Your task to perform on an android device: turn off improve location accuracy Image 0: 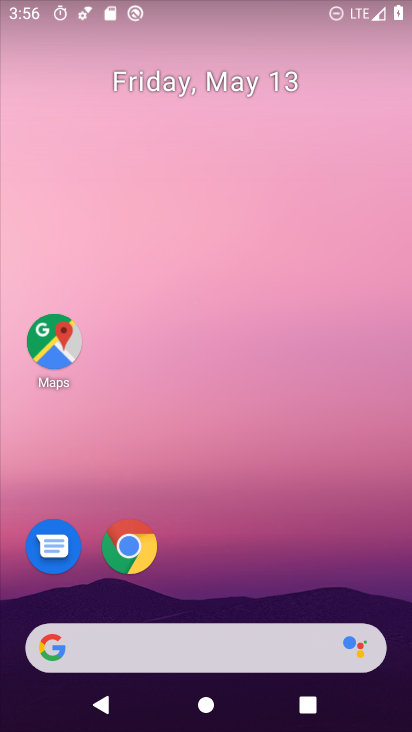
Step 0: drag from (156, 669) to (171, 210)
Your task to perform on an android device: turn off improve location accuracy Image 1: 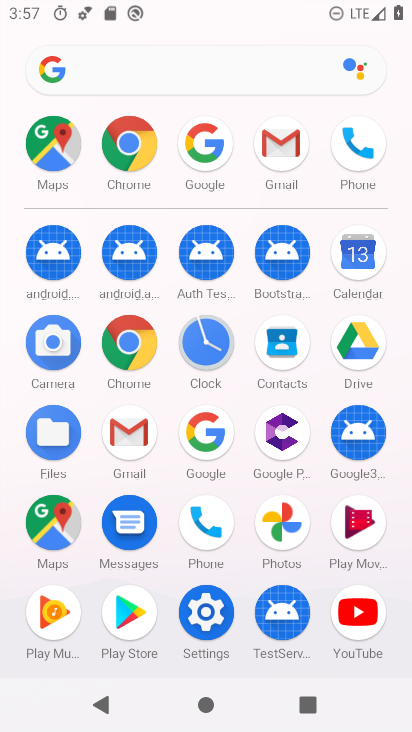
Step 1: click (213, 624)
Your task to perform on an android device: turn off improve location accuracy Image 2: 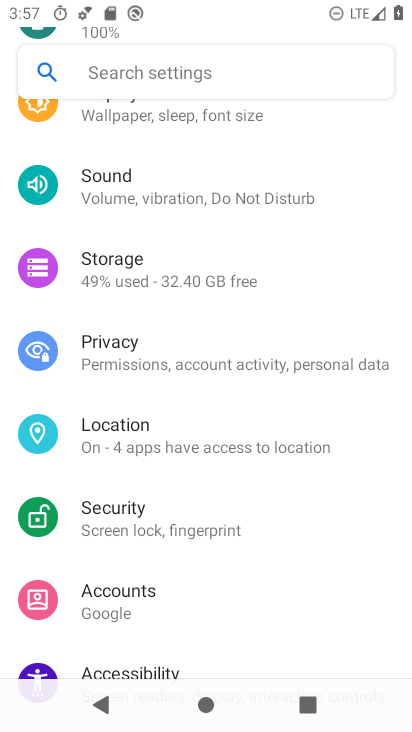
Step 2: drag from (197, 514) to (196, 291)
Your task to perform on an android device: turn off improve location accuracy Image 3: 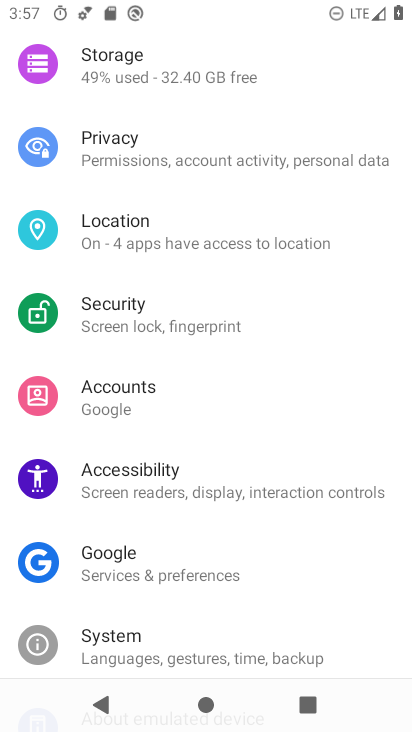
Step 3: drag from (168, 530) to (167, 263)
Your task to perform on an android device: turn off improve location accuracy Image 4: 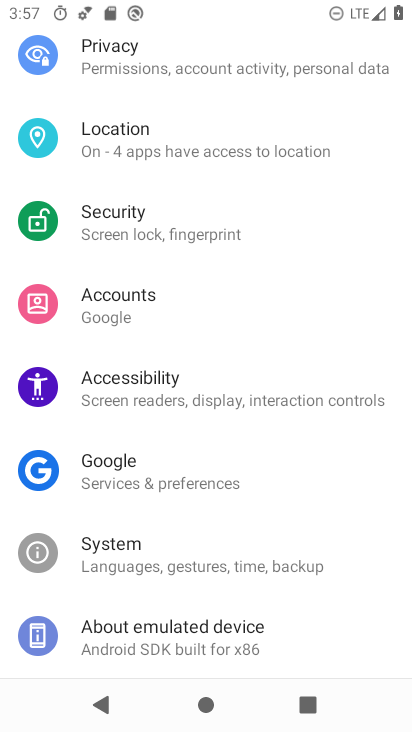
Step 4: drag from (163, 554) to (161, 328)
Your task to perform on an android device: turn off improve location accuracy Image 5: 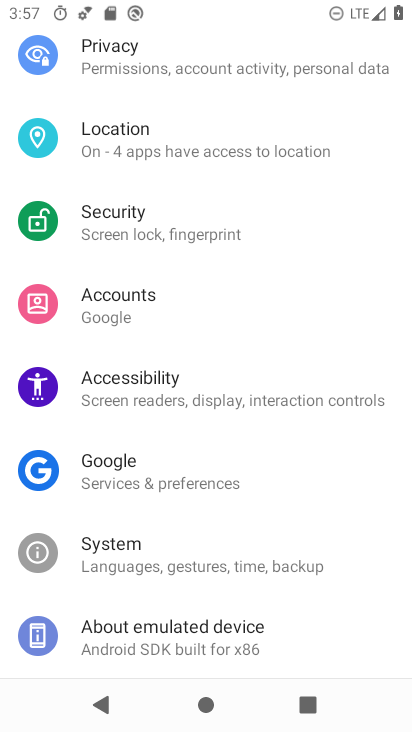
Step 5: click (158, 154)
Your task to perform on an android device: turn off improve location accuracy Image 6: 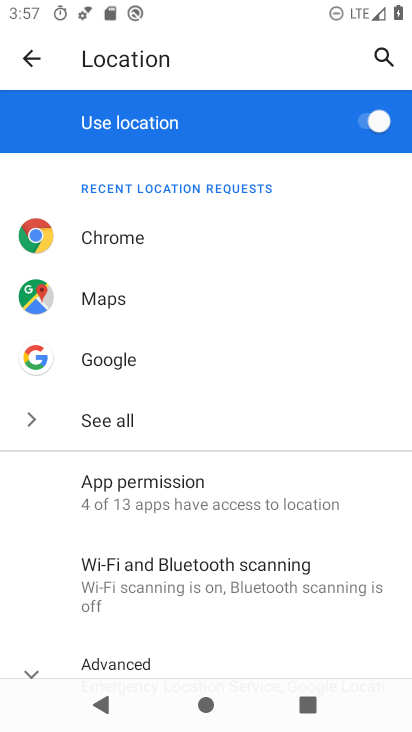
Step 6: drag from (191, 609) to (198, 326)
Your task to perform on an android device: turn off improve location accuracy Image 7: 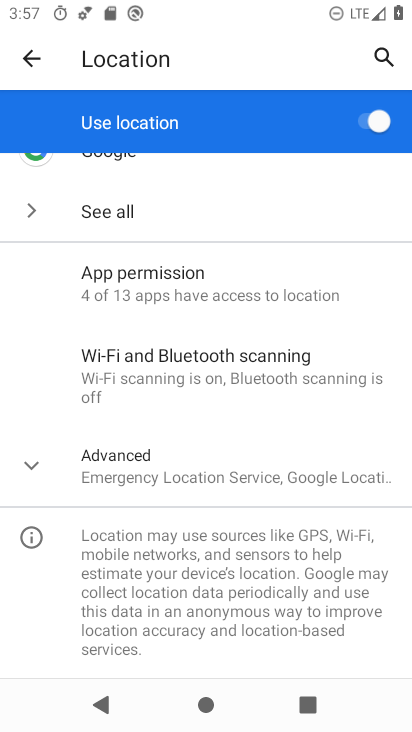
Step 7: drag from (210, 556) to (213, 447)
Your task to perform on an android device: turn off improve location accuracy Image 8: 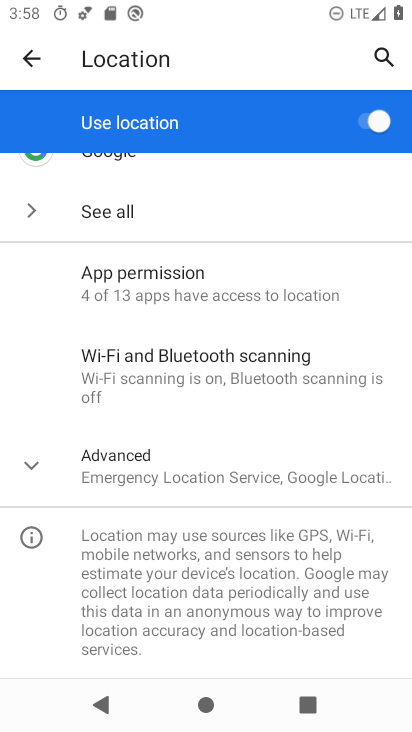
Step 8: click (215, 457)
Your task to perform on an android device: turn off improve location accuracy Image 9: 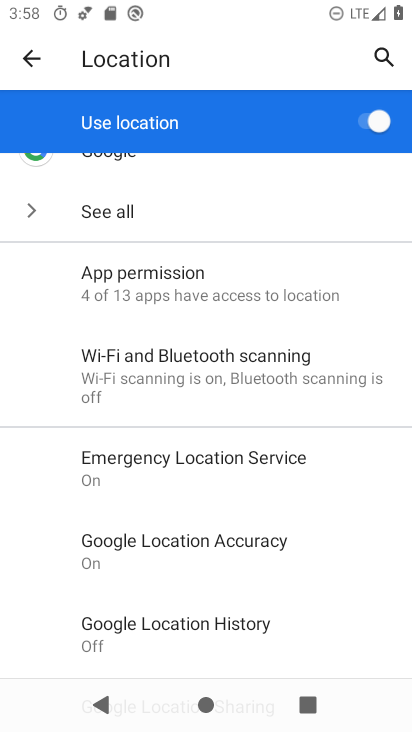
Step 9: click (215, 561)
Your task to perform on an android device: turn off improve location accuracy Image 10: 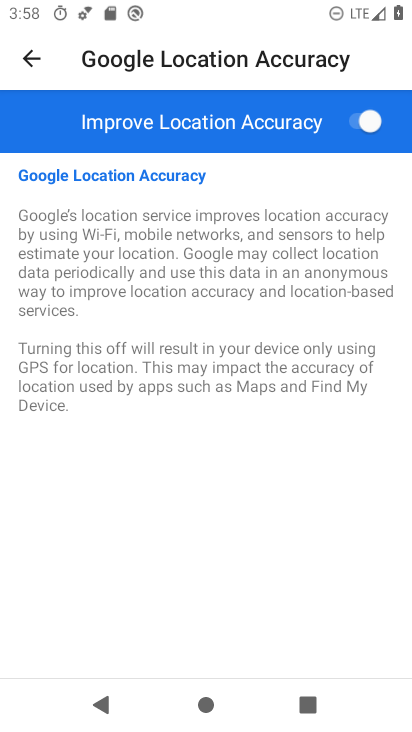
Step 10: click (344, 115)
Your task to perform on an android device: turn off improve location accuracy Image 11: 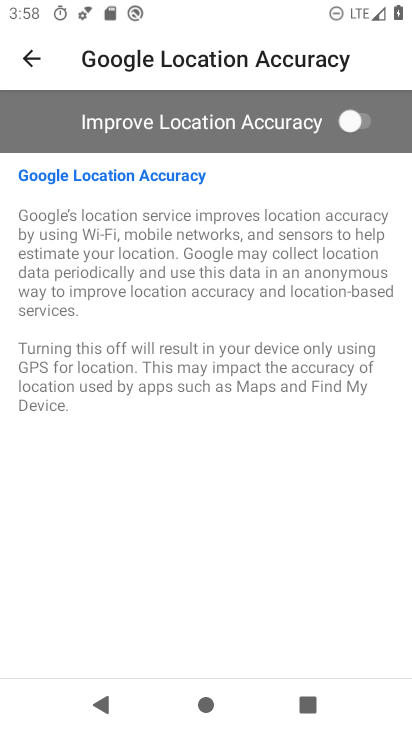
Step 11: task complete